Your task to perform on an android device: open wifi settings Image 0: 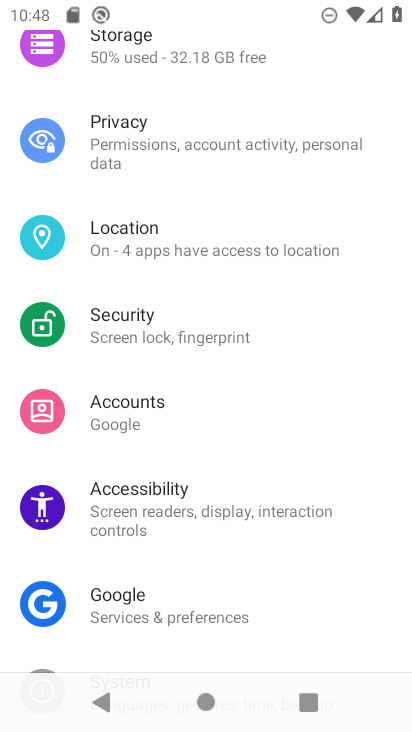
Step 0: drag from (262, 272) to (243, 587)
Your task to perform on an android device: open wifi settings Image 1: 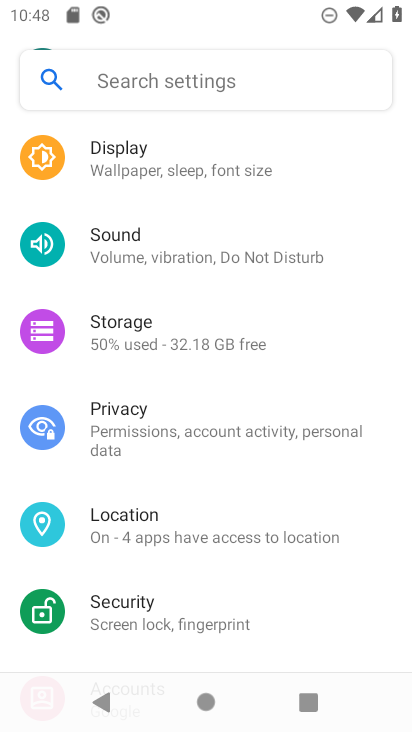
Step 1: drag from (206, 258) to (223, 579)
Your task to perform on an android device: open wifi settings Image 2: 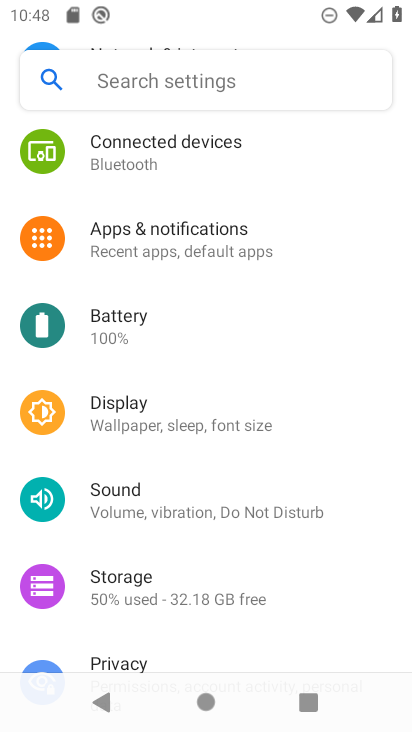
Step 2: drag from (203, 253) to (150, 651)
Your task to perform on an android device: open wifi settings Image 3: 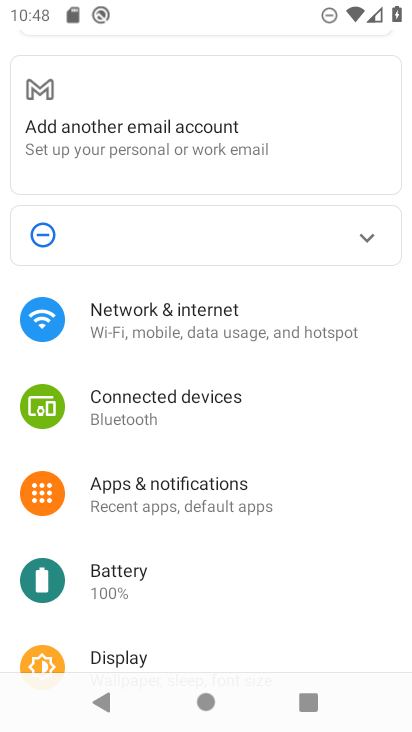
Step 3: click (153, 352)
Your task to perform on an android device: open wifi settings Image 4: 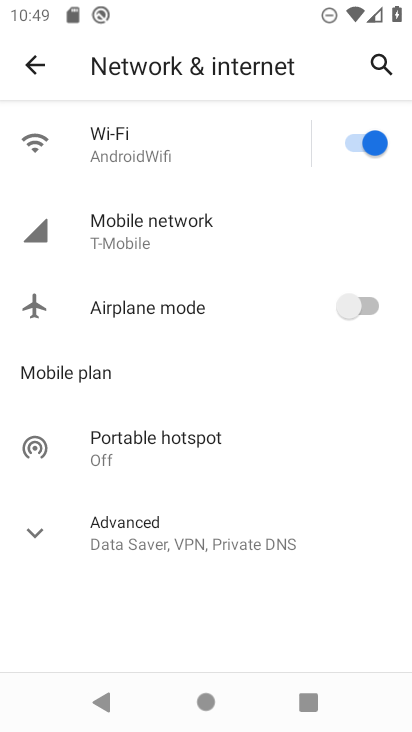
Step 4: task complete